Your task to perform on an android device: turn off improve location accuracy Image 0: 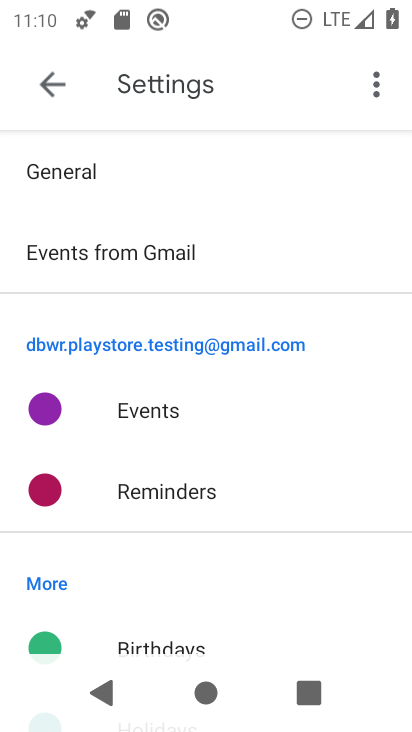
Step 0: press back button
Your task to perform on an android device: turn off improve location accuracy Image 1: 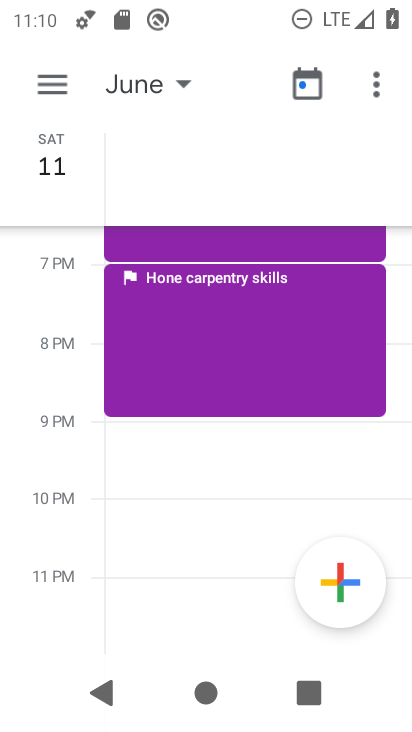
Step 1: press home button
Your task to perform on an android device: turn off improve location accuracy Image 2: 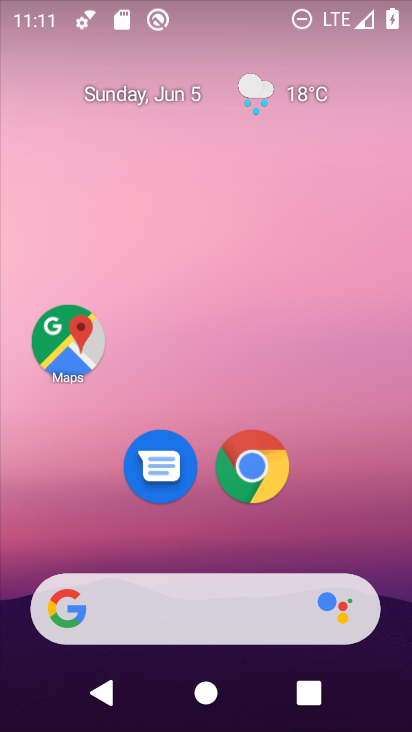
Step 2: drag from (355, 535) to (229, 51)
Your task to perform on an android device: turn off improve location accuracy Image 3: 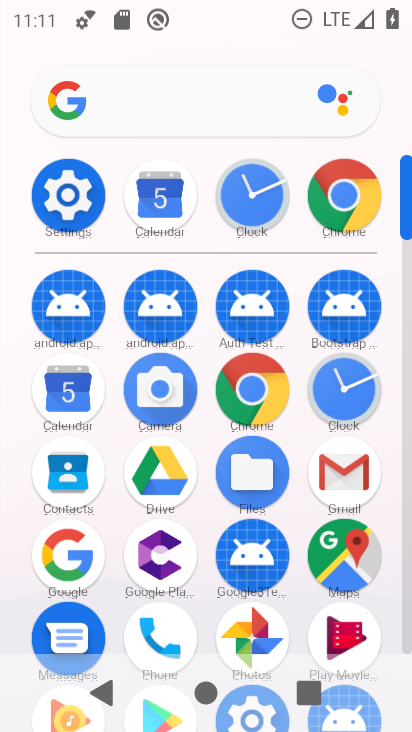
Step 3: click (67, 191)
Your task to perform on an android device: turn off improve location accuracy Image 4: 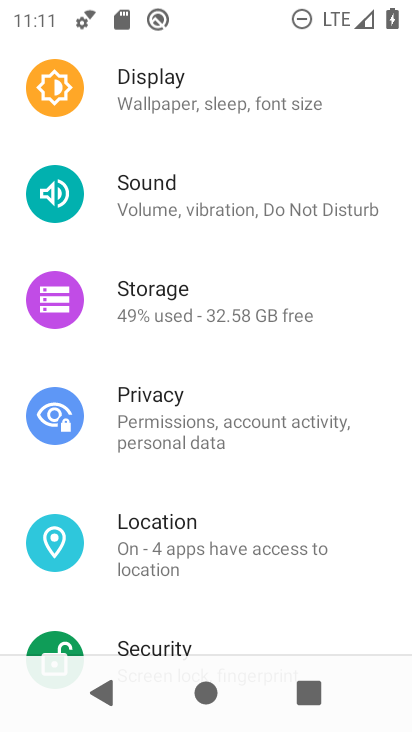
Step 4: click (227, 547)
Your task to perform on an android device: turn off improve location accuracy Image 5: 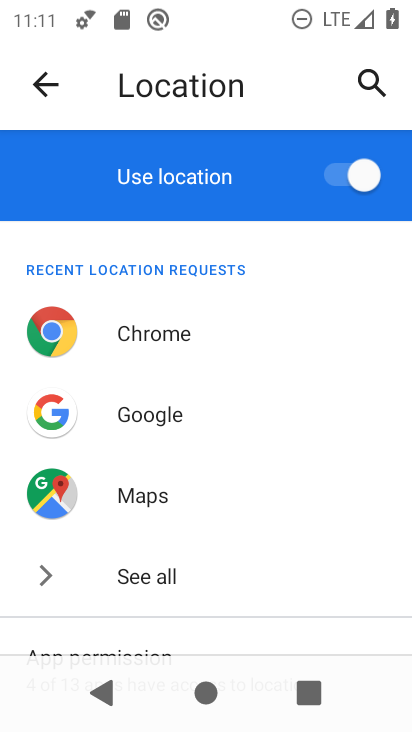
Step 5: drag from (272, 575) to (228, 177)
Your task to perform on an android device: turn off improve location accuracy Image 6: 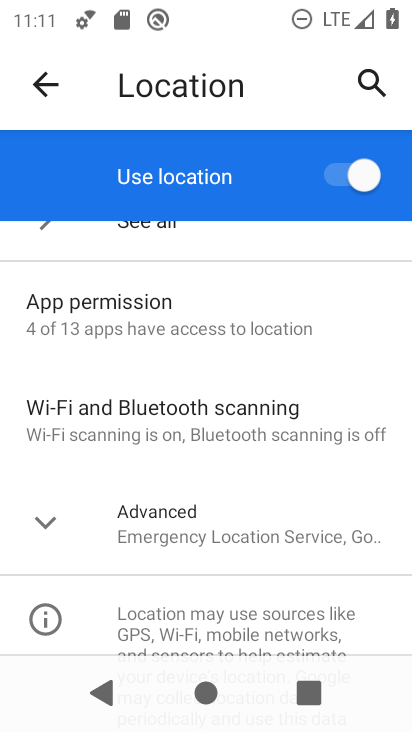
Step 6: click (68, 527)
Your task to perform on an android device: turn off improve location accuracy Image 7: 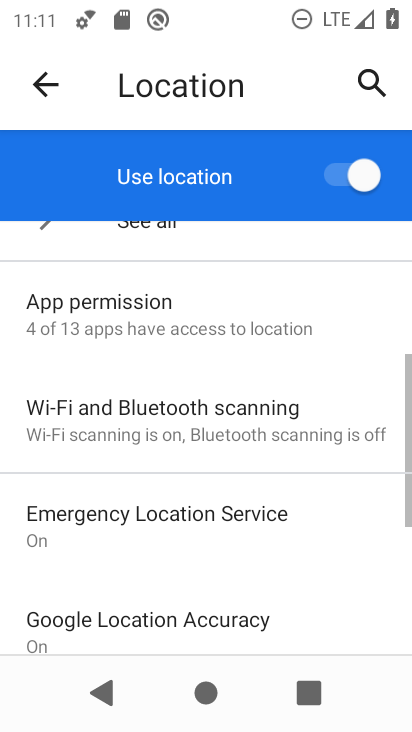
Step 7: drag from (285, 571) to (277, 308)
Your task to perform on an android device: turn off improve location accuracy Image 8: 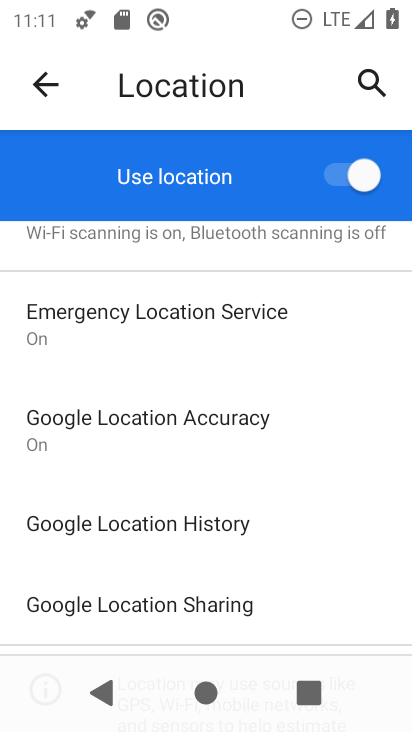
Step 8: click (198, 415)
Your task to perform on an android device: turn off improve location accuracy Image 9: 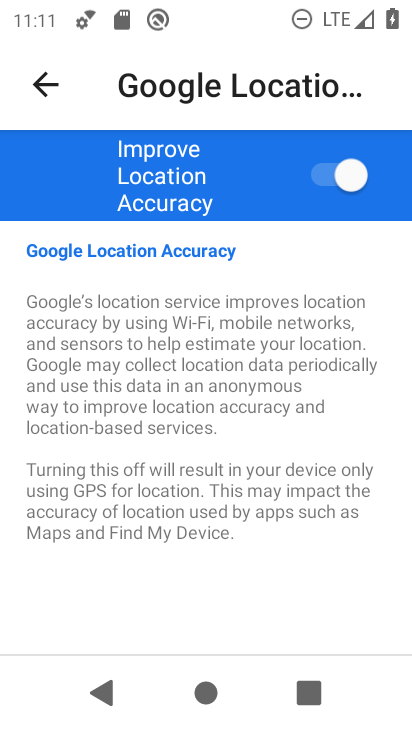
Step 9: click (319, 178)
Your task to perform on an android device: turn off improve location accuracy Image 10: 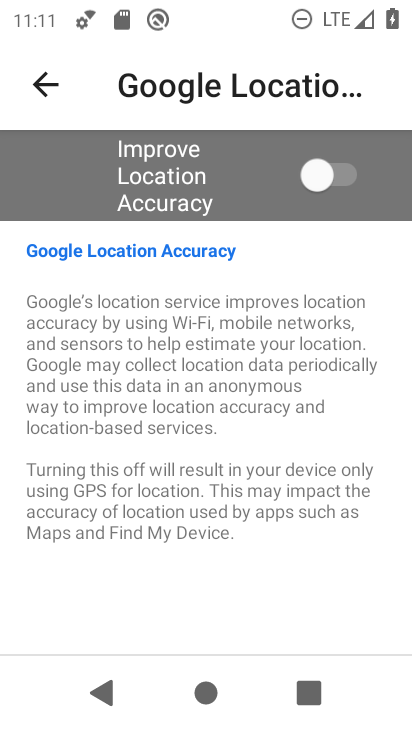
Step 10: task complete